Your task to perform on an android device: toggle airplane mode Image 0: 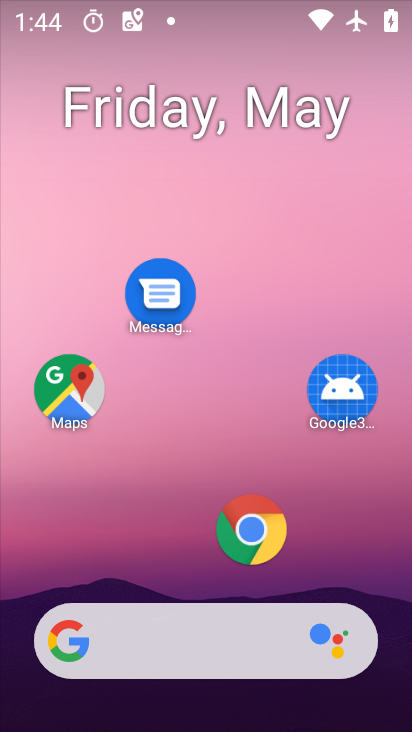
Step 0: drag from (275, 628) to (145, 103)
Your task to perform on an android device: toggle airplane mode Image 1: 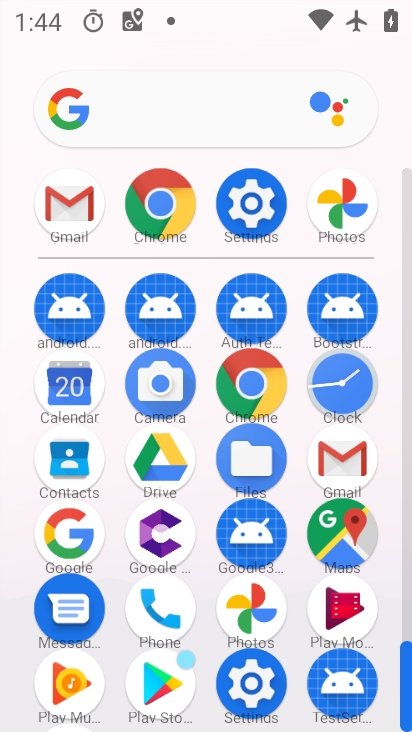
Step 1: click (263, 217)
Your task to perform on an android device: toggle airplane mode Image 2: 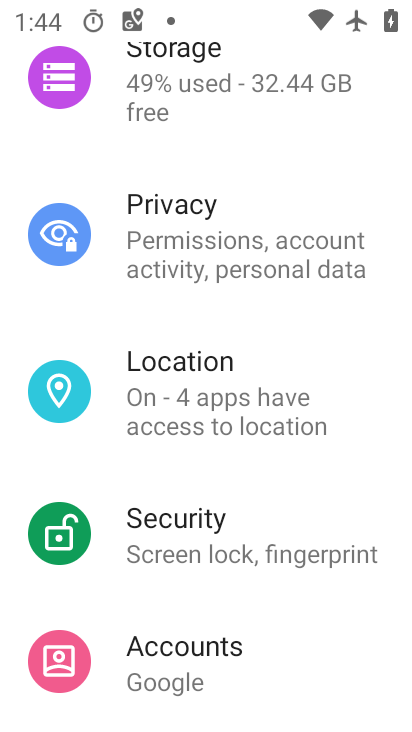
Step 2: drag from (255, 237) to (325, 556)
Your task to perform on an android device: toggle airplane mode Image 3: 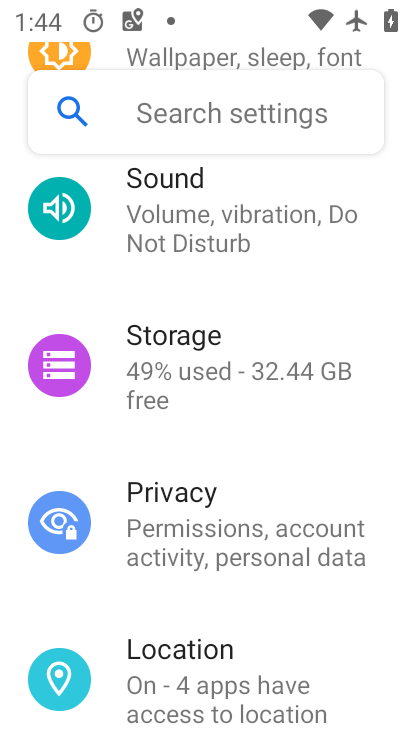
Step 3: drag from (200, 421) to (198, 566)
Your task to perform on an android device: toggle airplane mode Image 4: 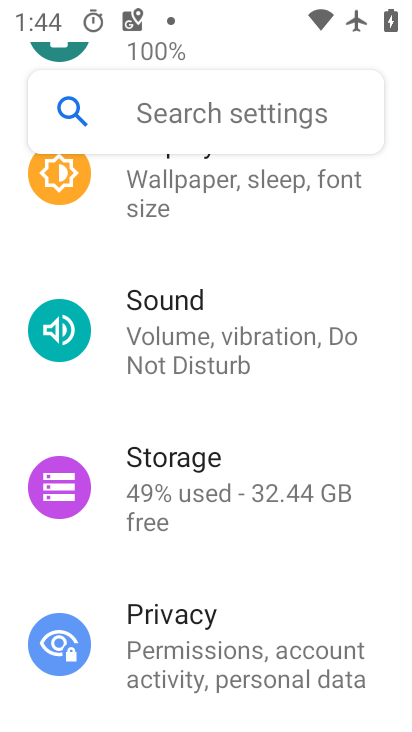
Step 4: drag from (185, 297) to (222, 539)
Your task to perform on an android device: toggle airplane mode Image 5: 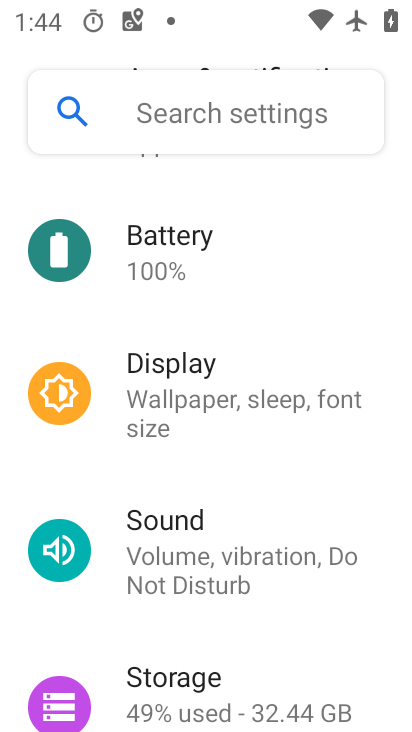
Step 5: drag from (223, 273) to (275, 658)
Your task to perform on an android device: toggle airplane mode Image 6: 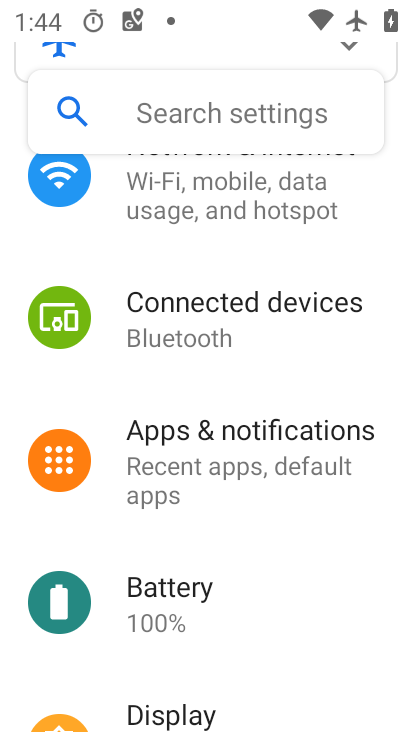
Step 6: drag from (251, 323) to (228, 640)
Your task to perform on an android device: toggle airplane mode Image 7: 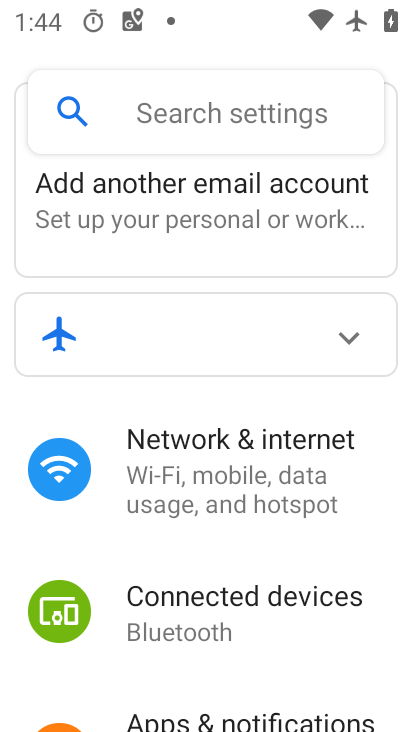
Step 7: click (199, 471)
Your task to perform on an android device: toggle airplane mode Image 8: 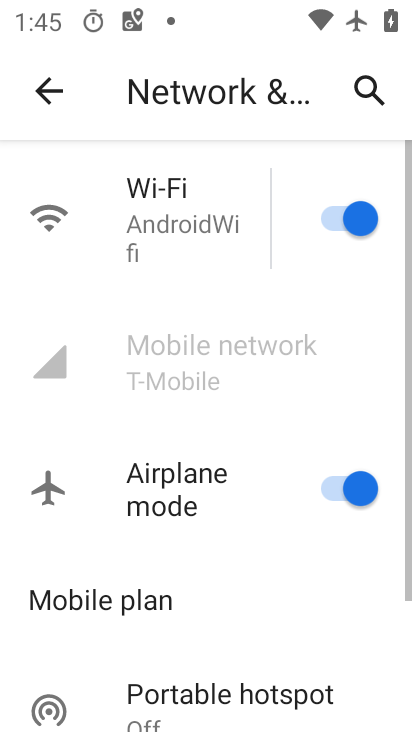
Step 8: click (199, 470)
Your task to perform on an android device: toggle airplane mode Image 9: 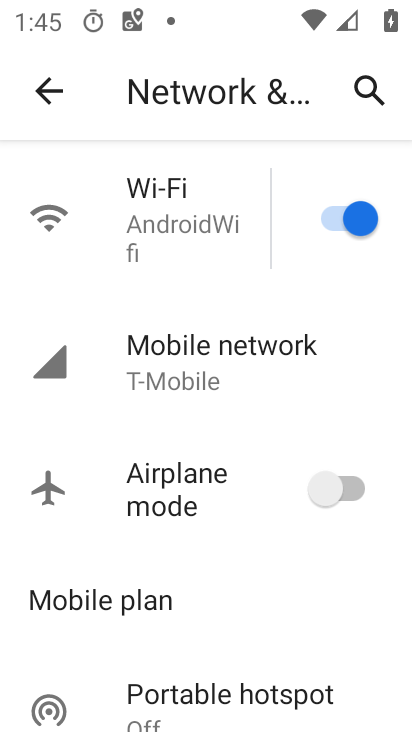
Step 9: task complete